Your task to perform on an android device: What's the news in Singapore? Image 0: 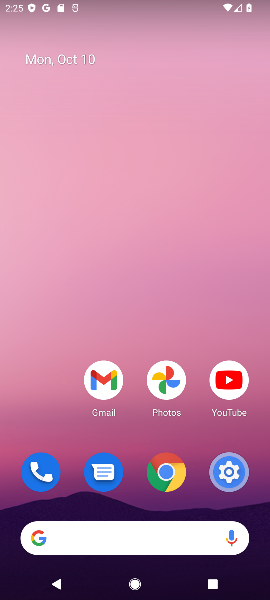
Step 0: click (97, 531)
Your task to perform on an android device: What's the news in Singapore? Image 1: 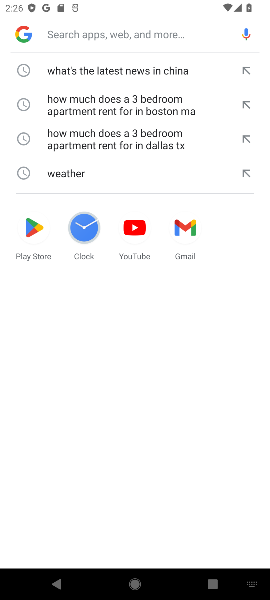
Step 1: type "What's the news in Singapore"
Your task to perform on an android device: What's the news in Singapore? Image 2: 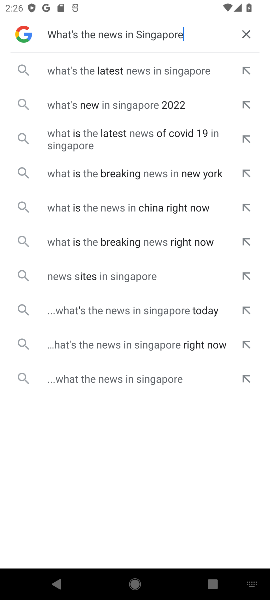
Step 2: click (75, 71)
Your task to perform on an android device: What's the news in Singapore? Image 3: 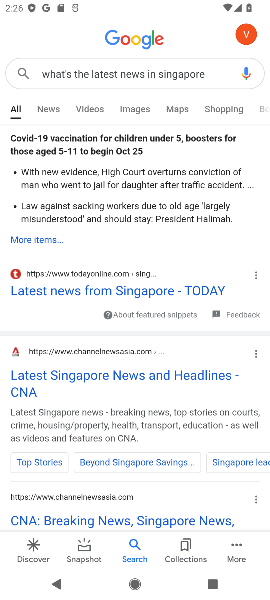
Step 3: task complete